Your task to perform on an android device: turn off javascript in the chrome app Image 0: 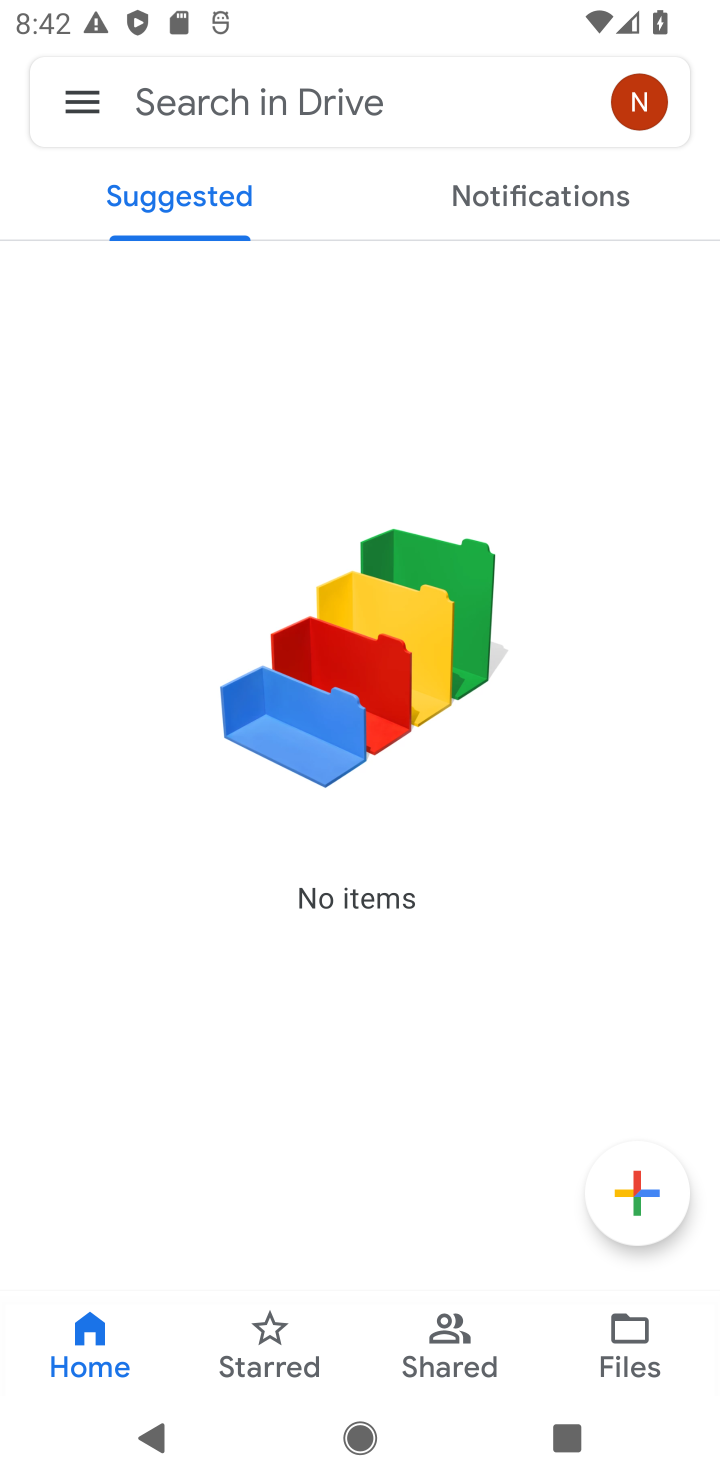
Step 0: press home button
Your task to perform on an android device: turn off javascript in the chrome app Image 1: 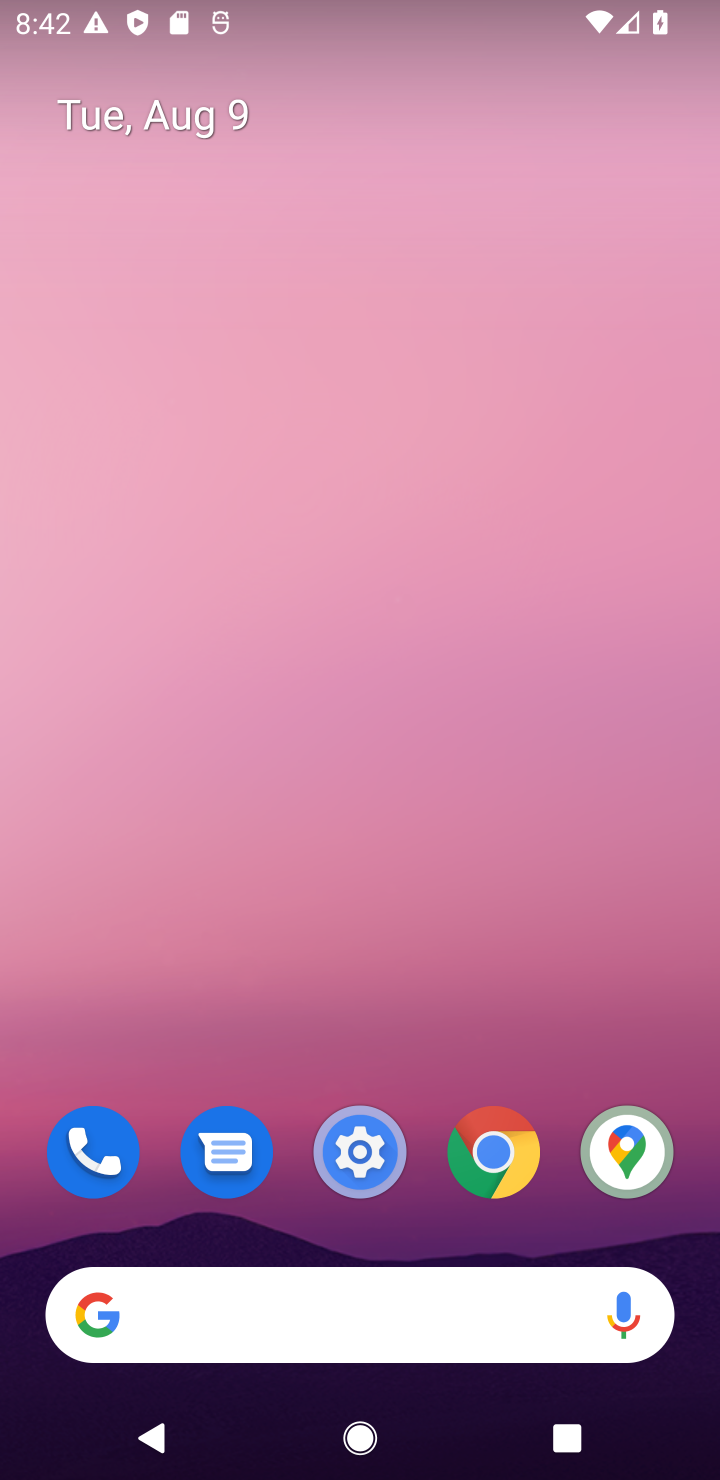
Step 1: click (482, 1124)
Your task to perform on an android device: turn off javascript in the chrome app Image 2: 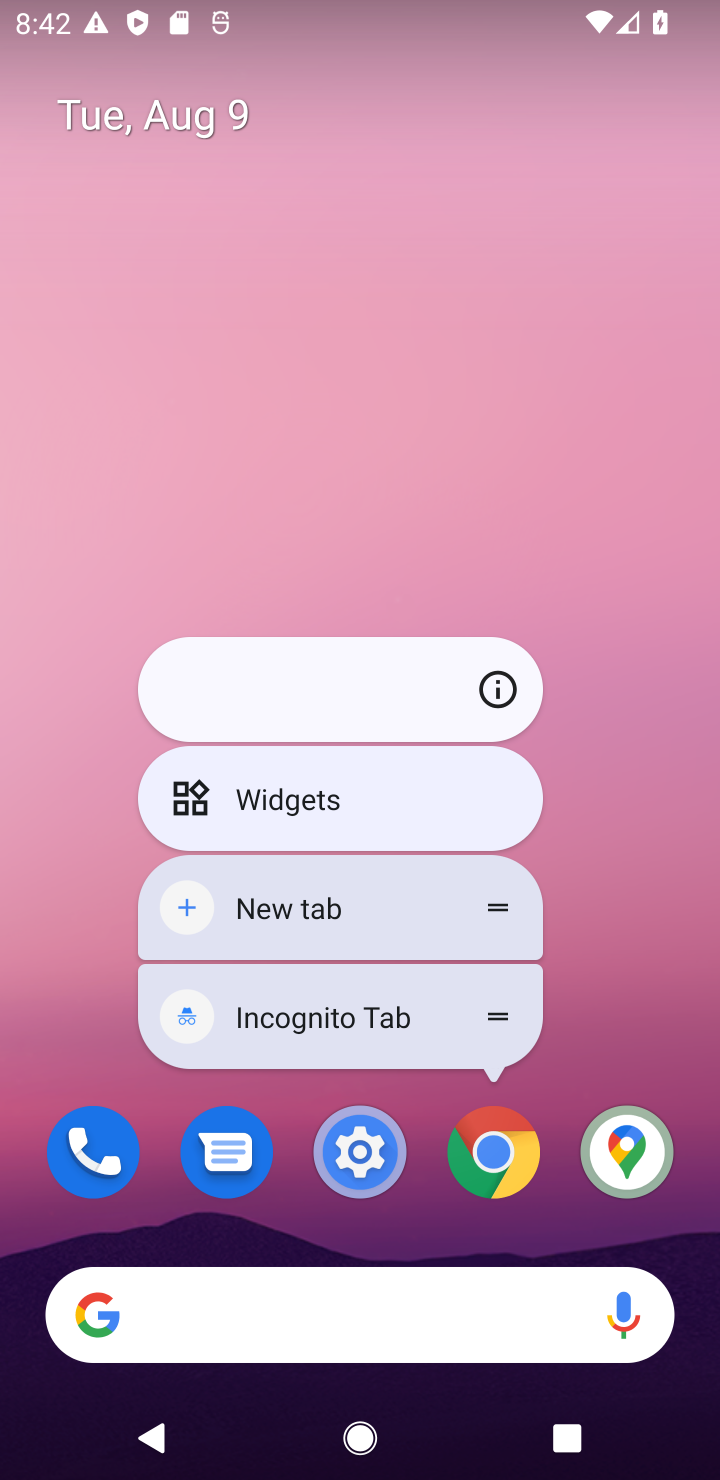
Step 2: click (499, 1162)
Your task to perform on an android device: turn off javascript in the chrome app Image 3: 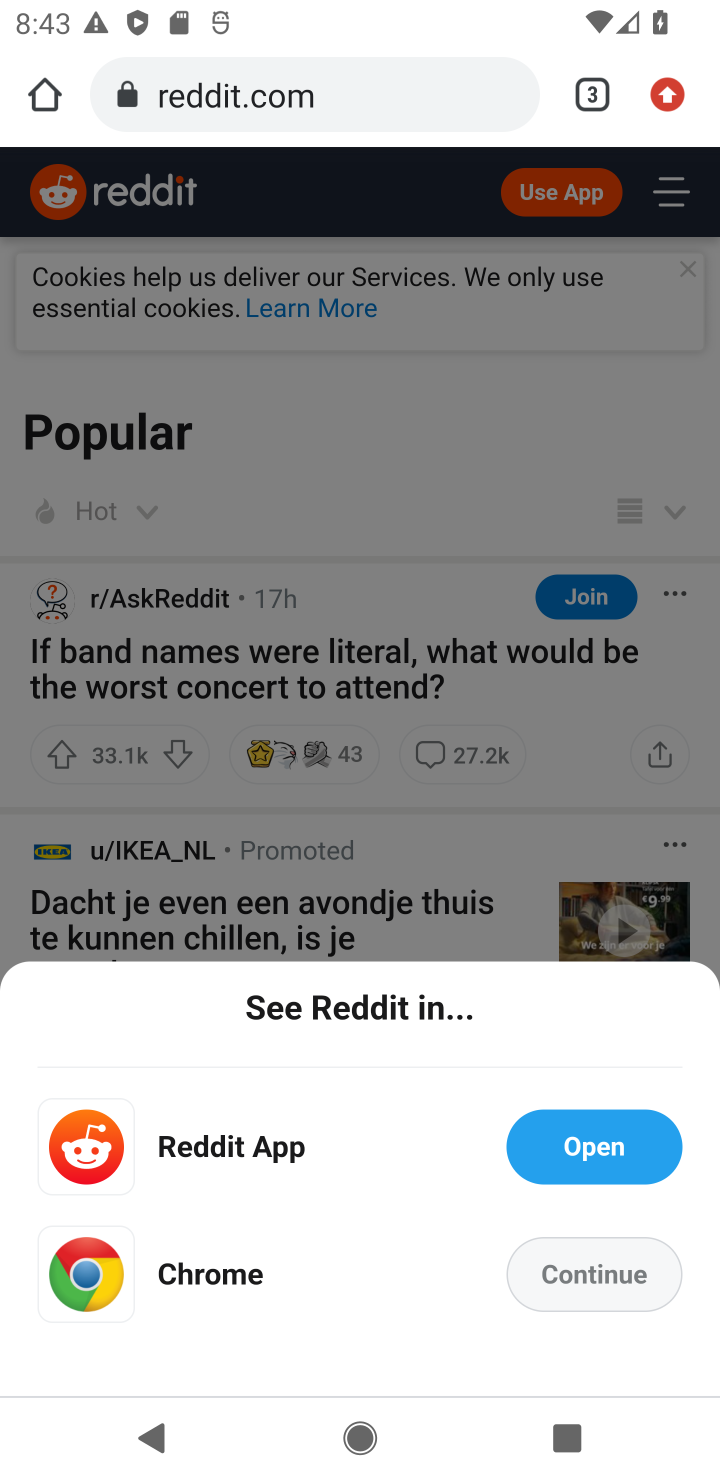
Step 3: click (663, 106)
Your task to perform on an android device: turn off javascript in the chrome app Image 4: 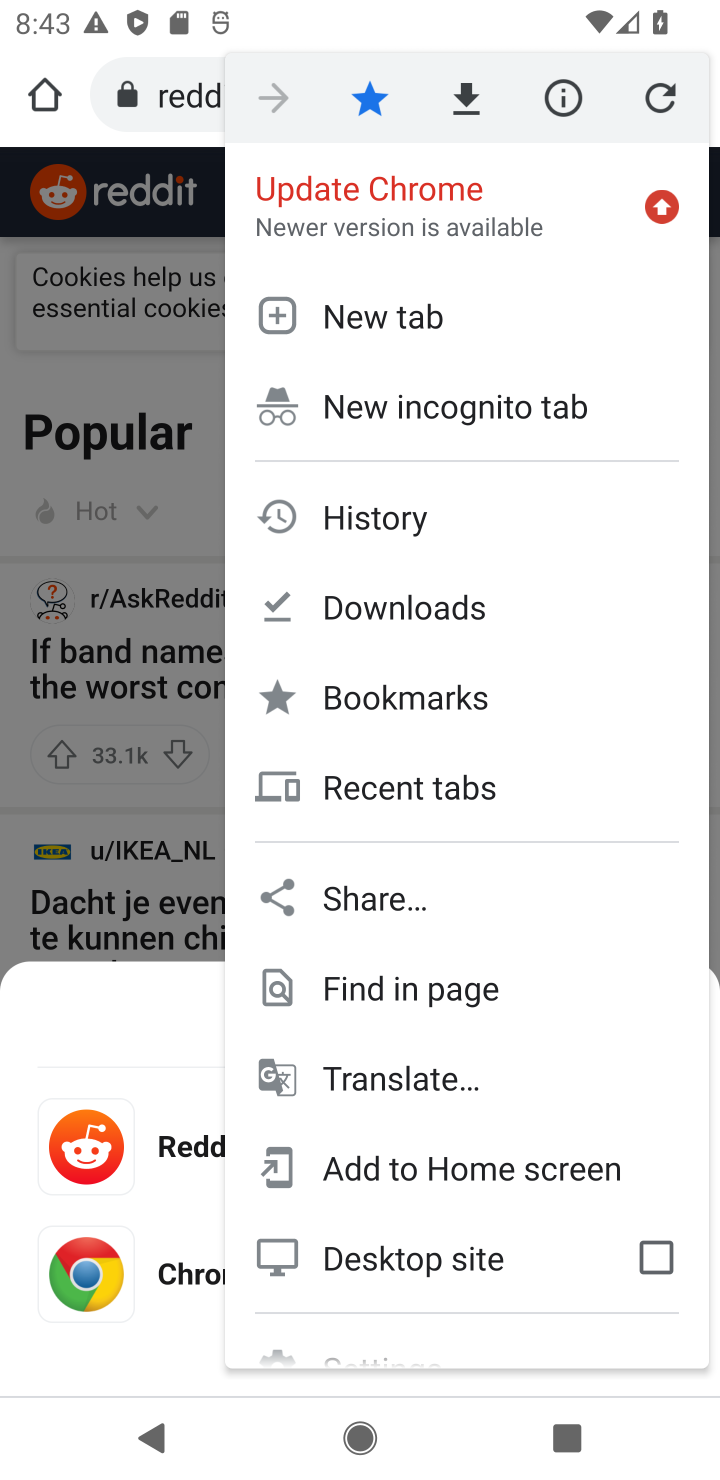
Step 4: drag from (613, 1132) to (650, 726)
Your task to perform on an android device: turn off javascript in the chrome app Image 5: 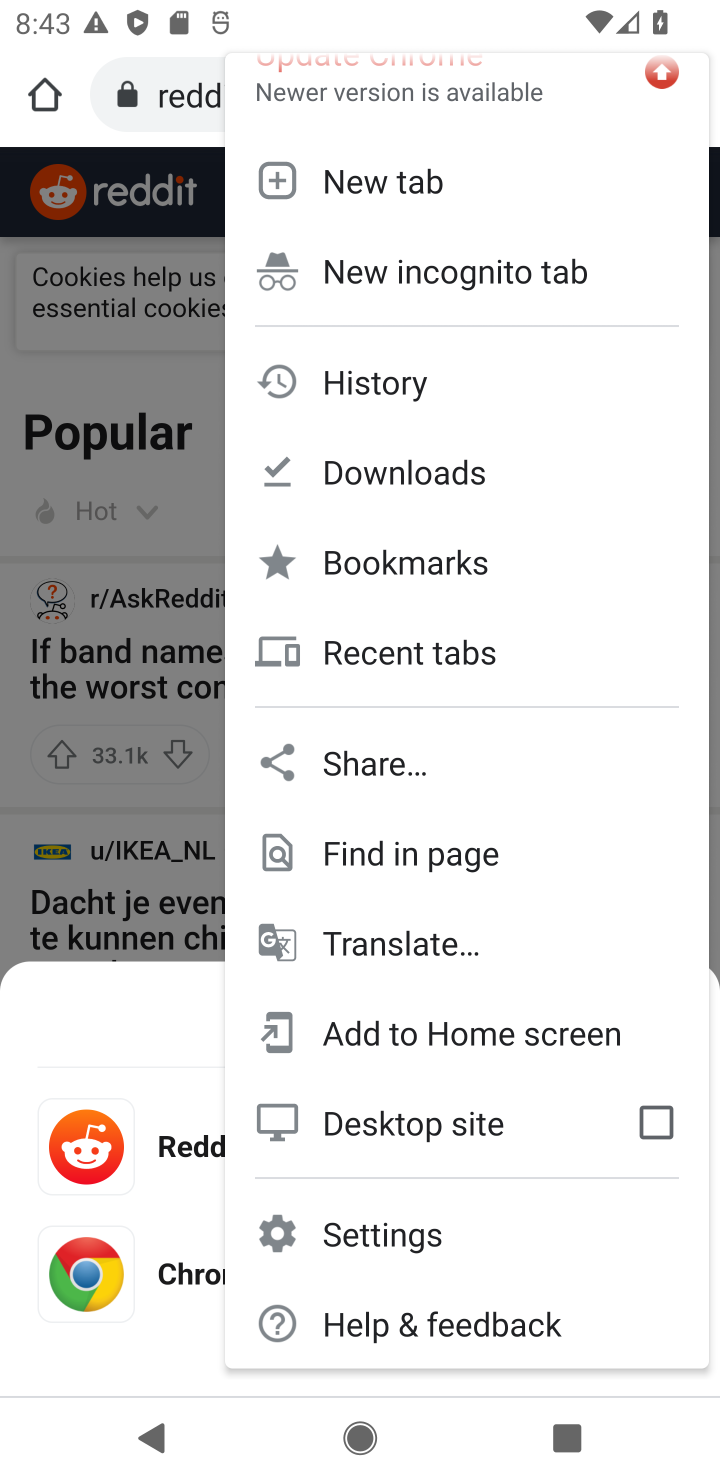
Step 5: click (494, 1234)
Your task to perform on an android device: turn off javascript in the chrome app Image 6: 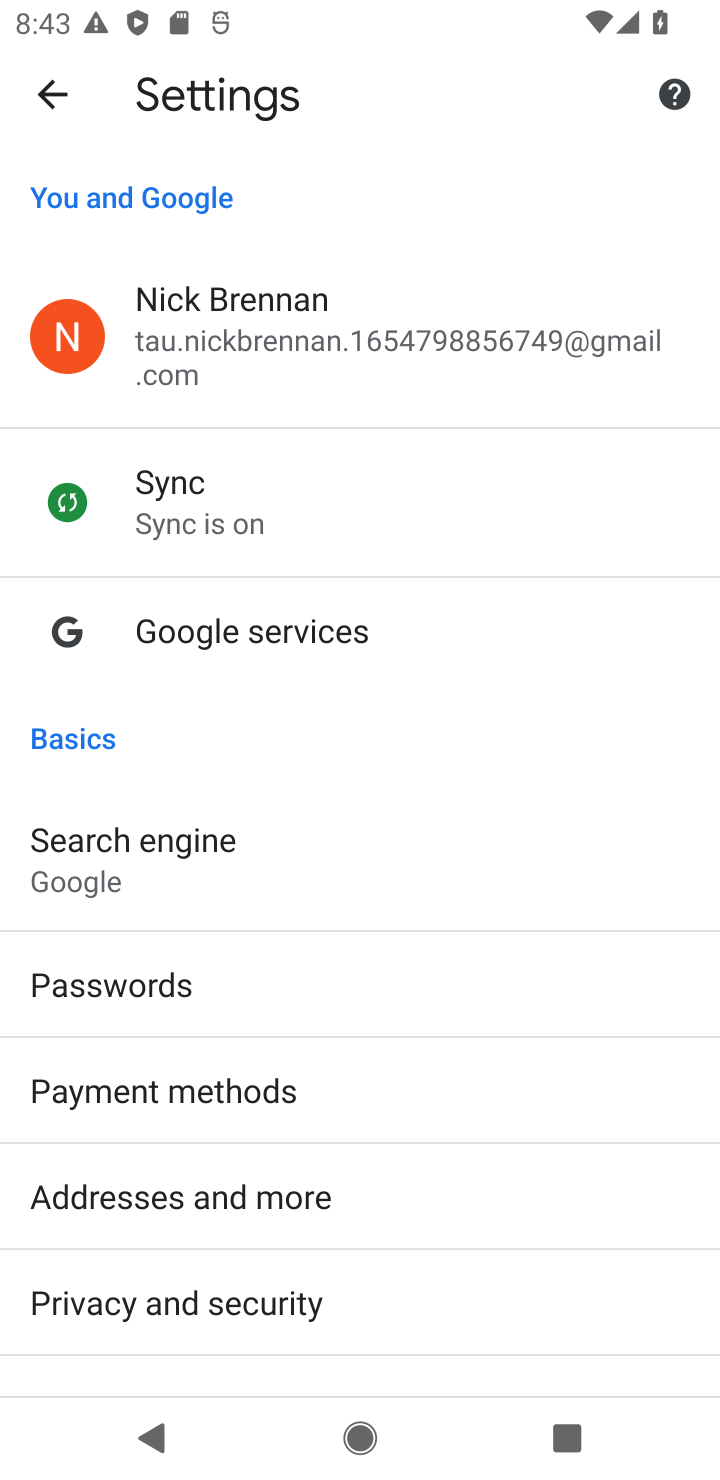
Step 6: drag from (533, 1148) to (507, 523)
Your task to perform on an android device: turn off javascript in the chrome app Image 7: 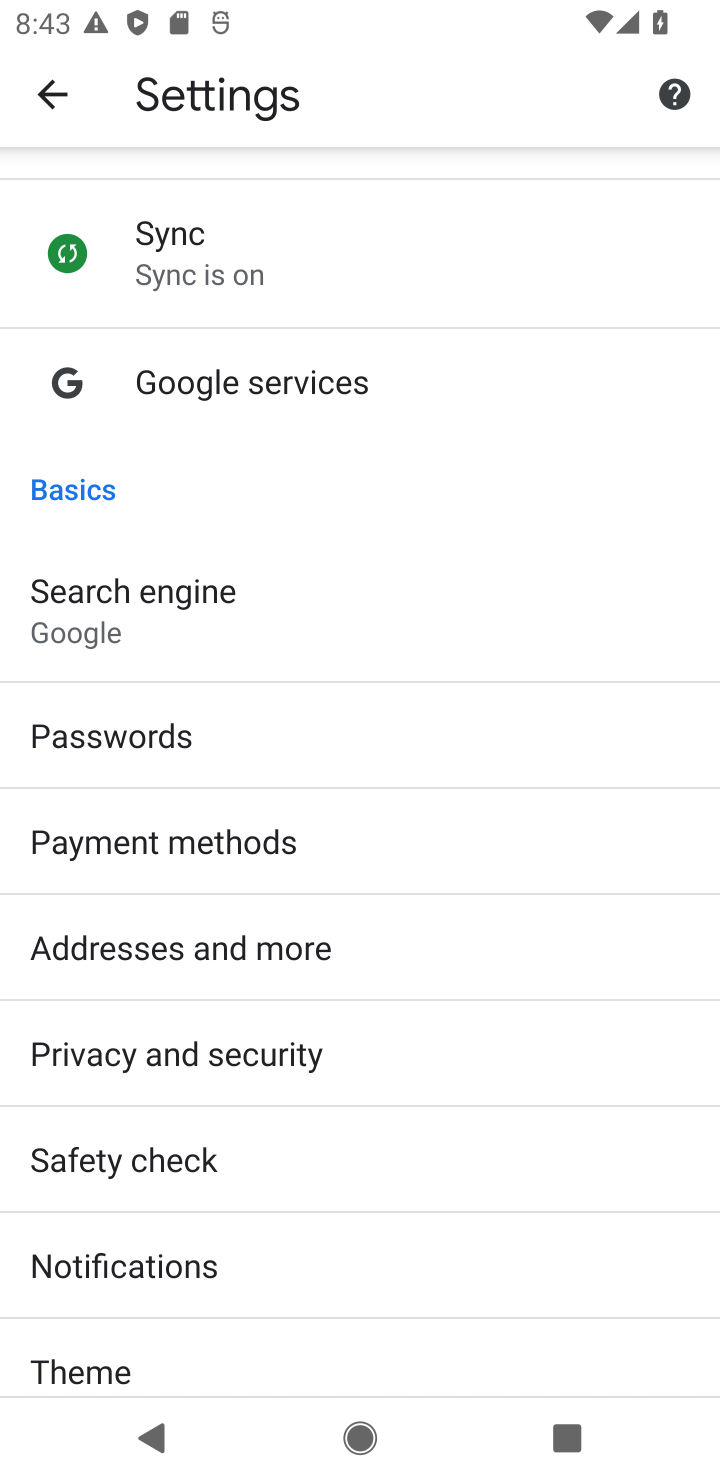
Step 7: drag from (388, 1341) to (467, 768)
Your task to perform on an android device: turn off javascript in the chrome app Image 8: 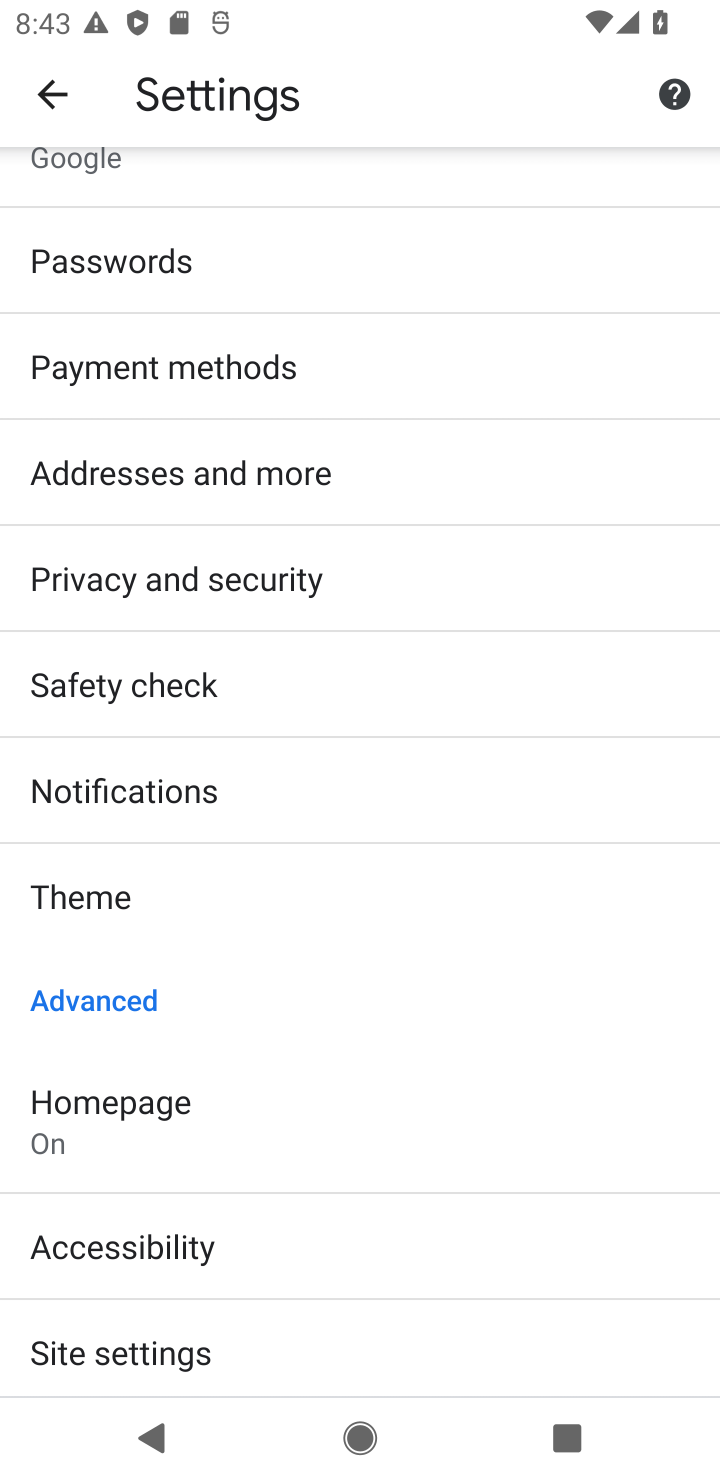
Step 8: click (173, 1314)
Your task to perform on an android device: turn off javascript in the chrome app Image 9: 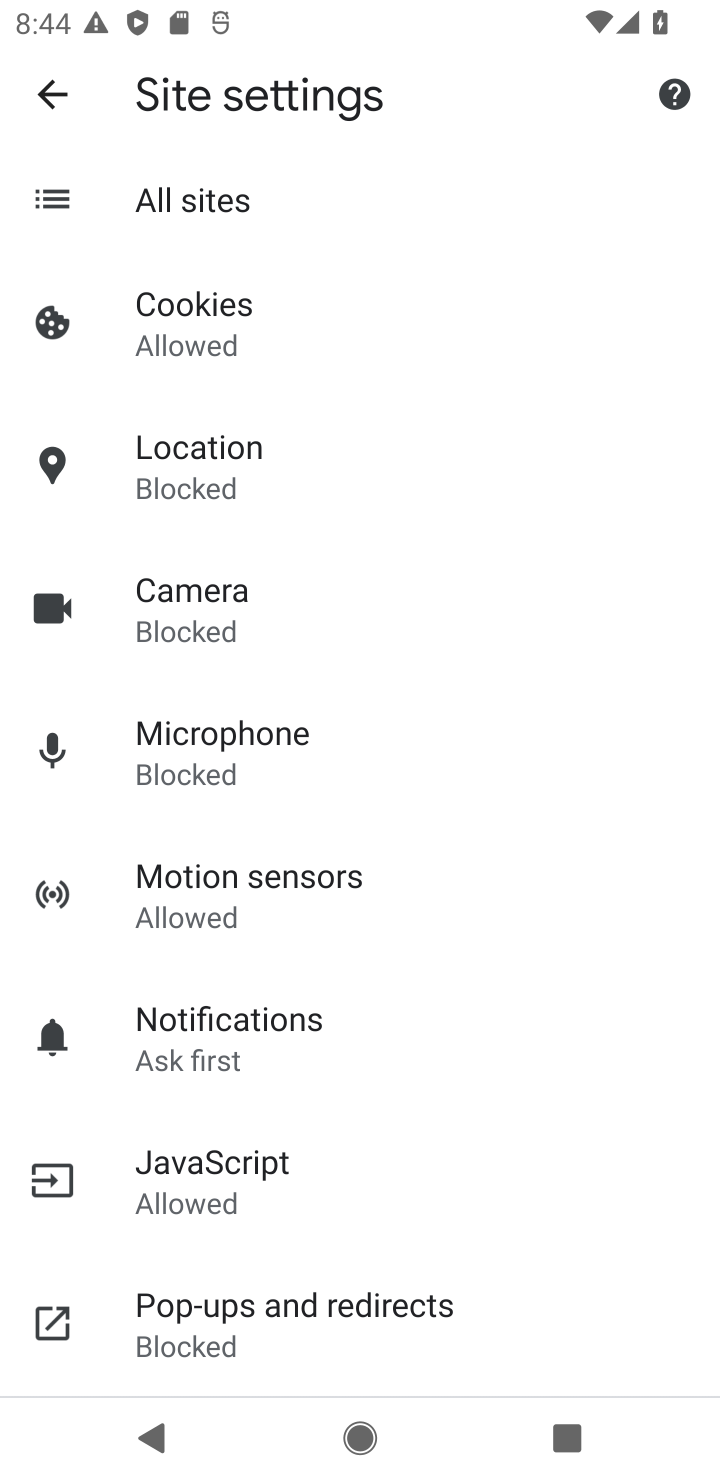
Step 9: click (152, 1188)
Your task to perform on an android device: turn off javascript in the chrome app Image 10: 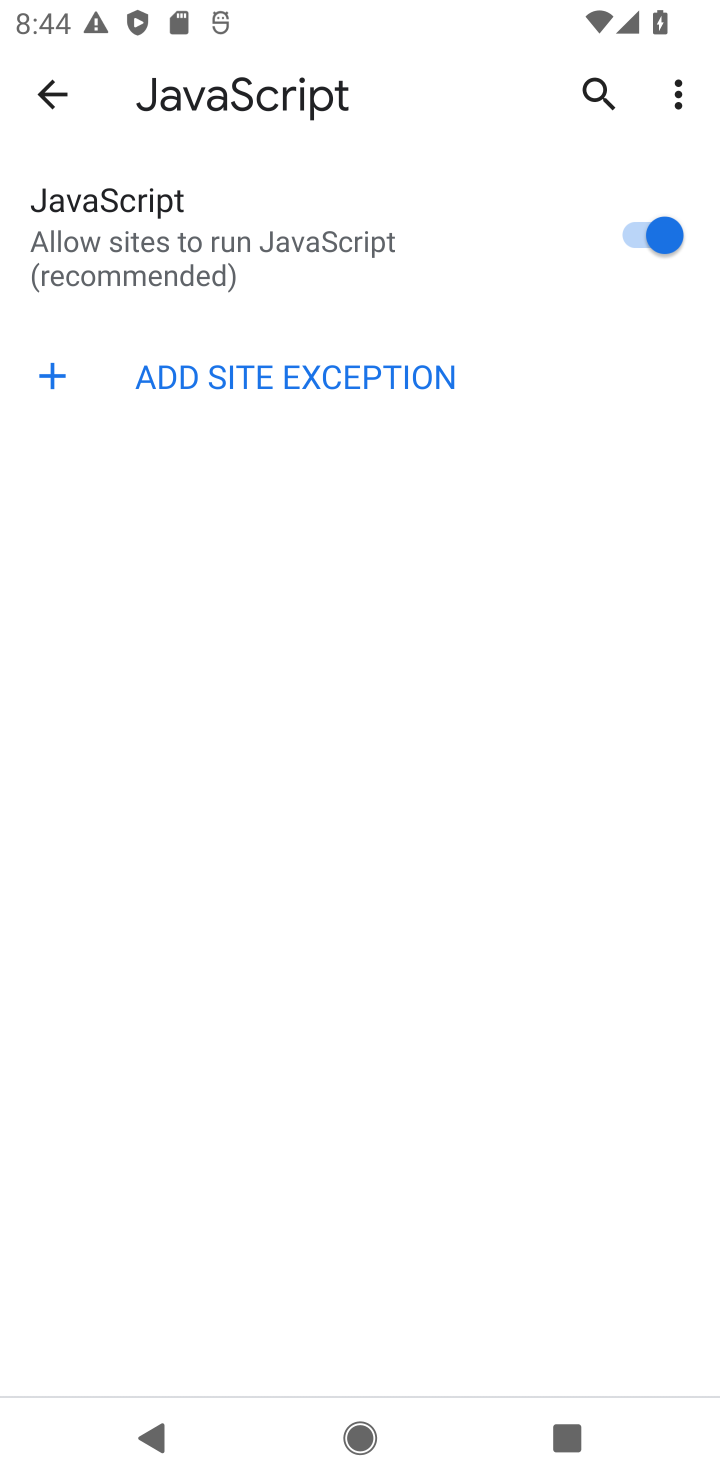
Step 10: click (657, 243)
Your task to perform on an android device: turn off javascript in the chrome app Image 11: 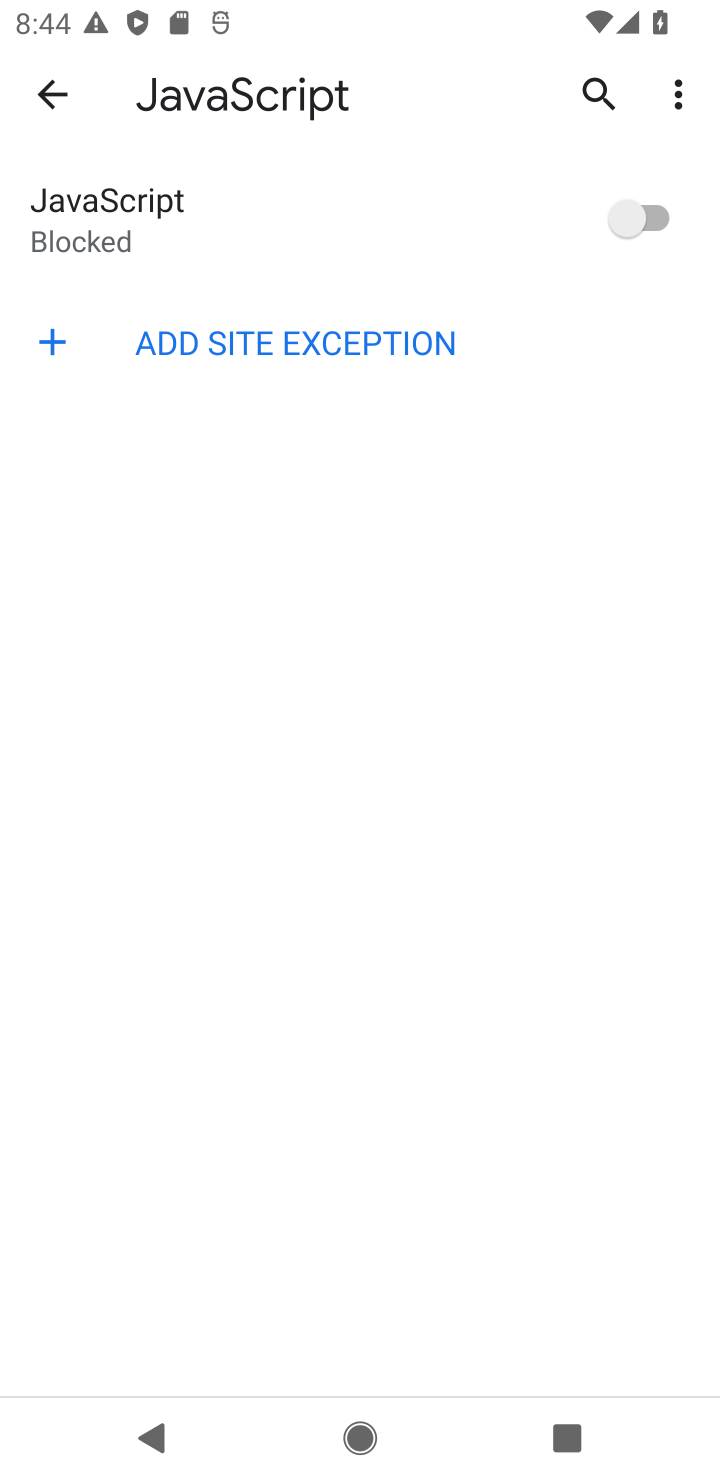
Step 11: task complete